Your task to perform on an android device: Add "usb-a to usb-b" to the cart on bestbuy.com, then select checkout. Image 0: 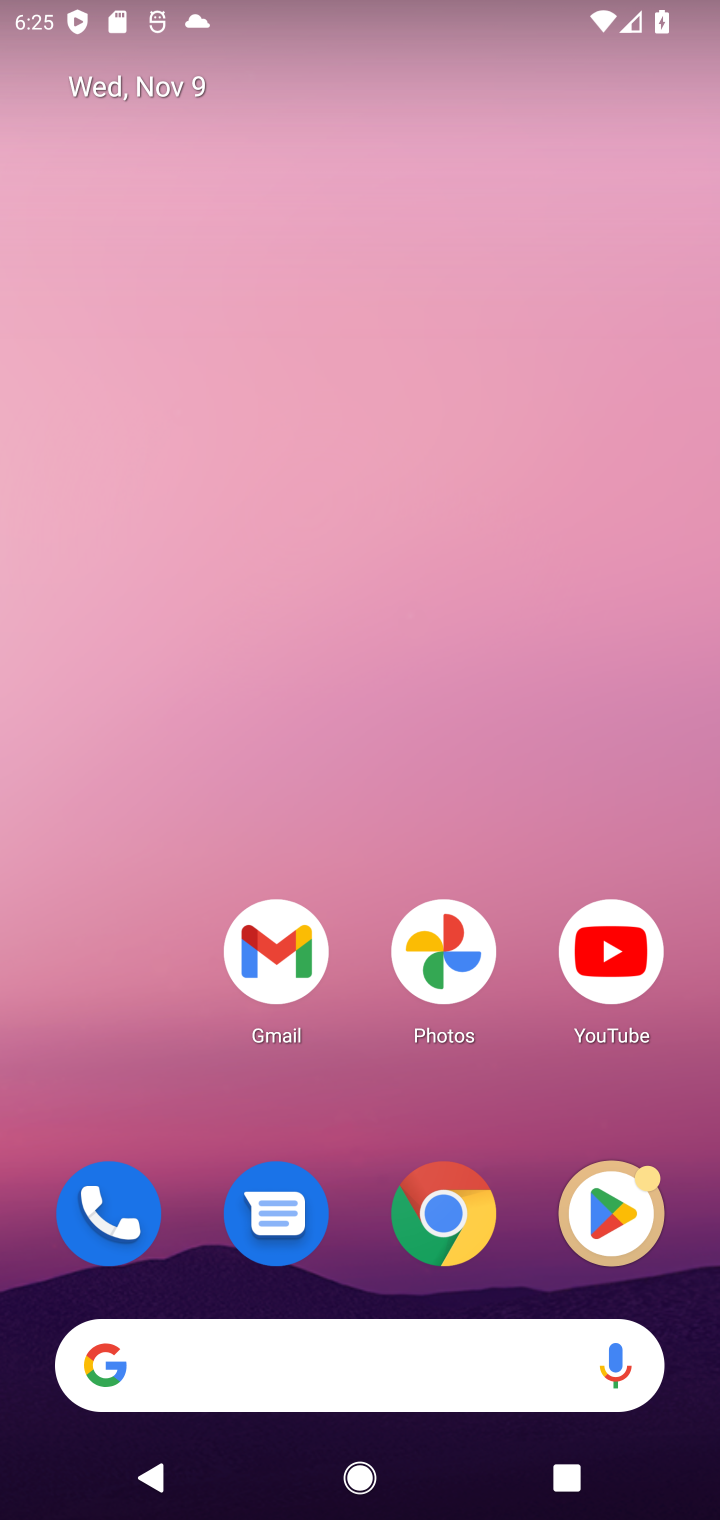
Step 0: click (429, 1202)
Your task to perform on an android device: Add "usb-a to usb-b" to the cart on bestbuy.com, then select checkout. Image 1: 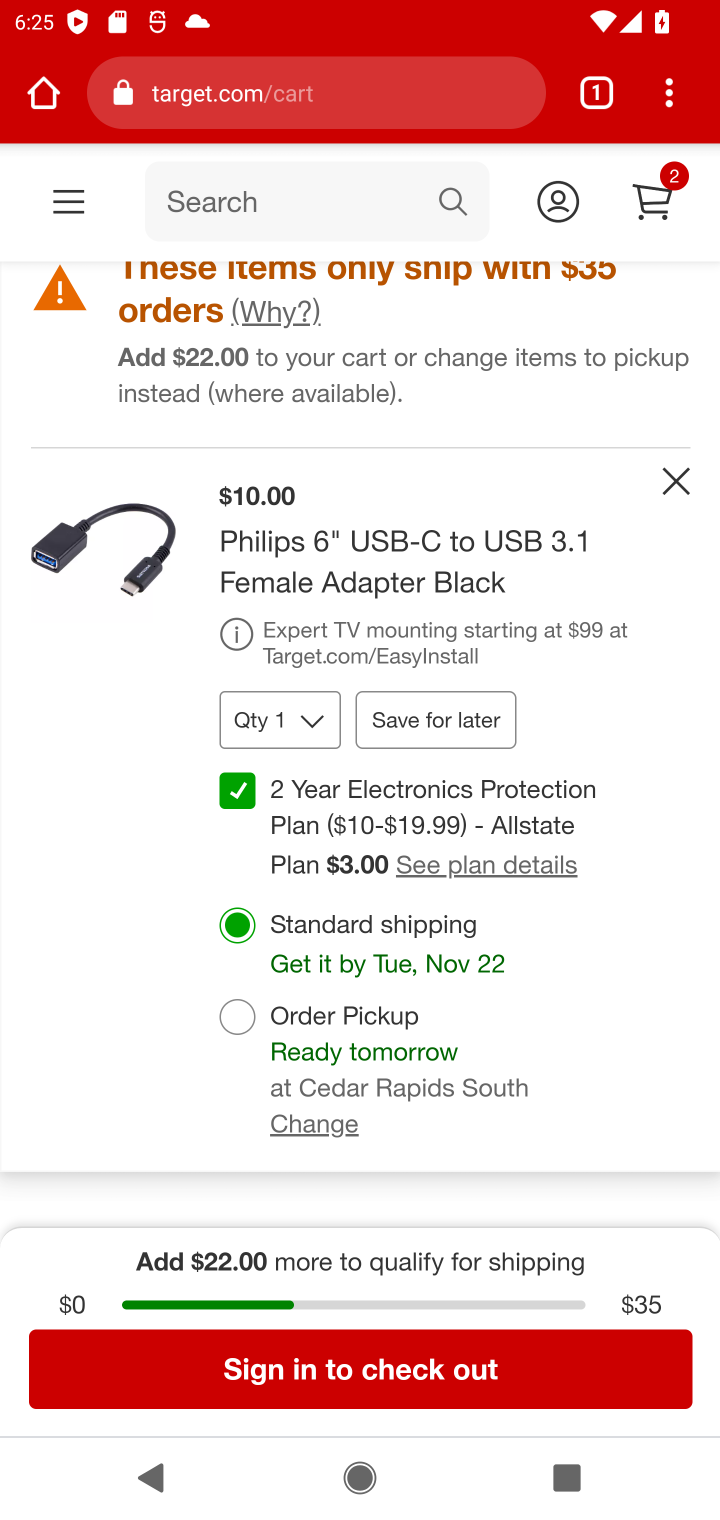
Step 1: click (207, 95)
Your task to perform on an android device: Add "usb-a to usb-b" to the cart on bestbuy.com, then select checkout. Image 2: 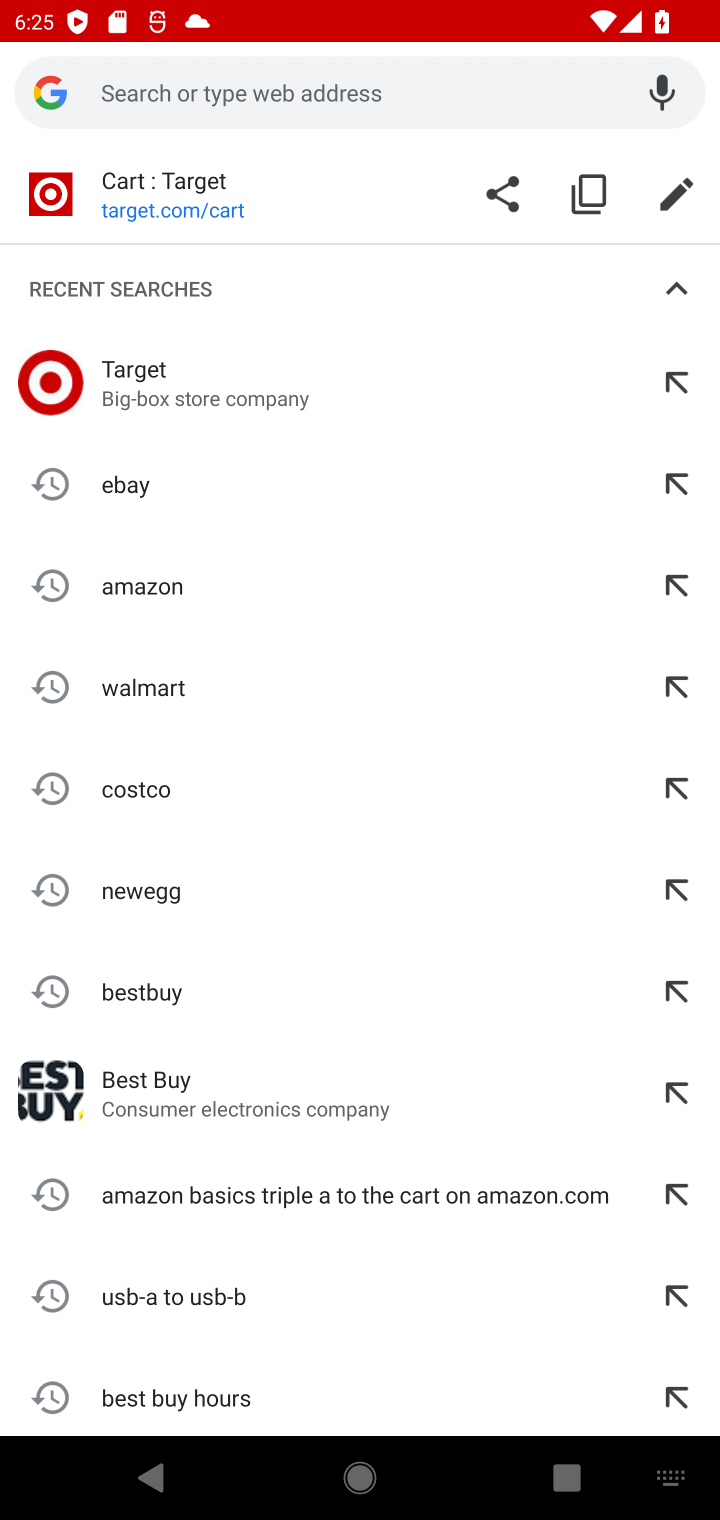
Step 2: click (175, 1107)
Your task to perform on an android device: Add "usb-a to usb-b" to the cart on bestbuy.com, then select checkout. Image 3: 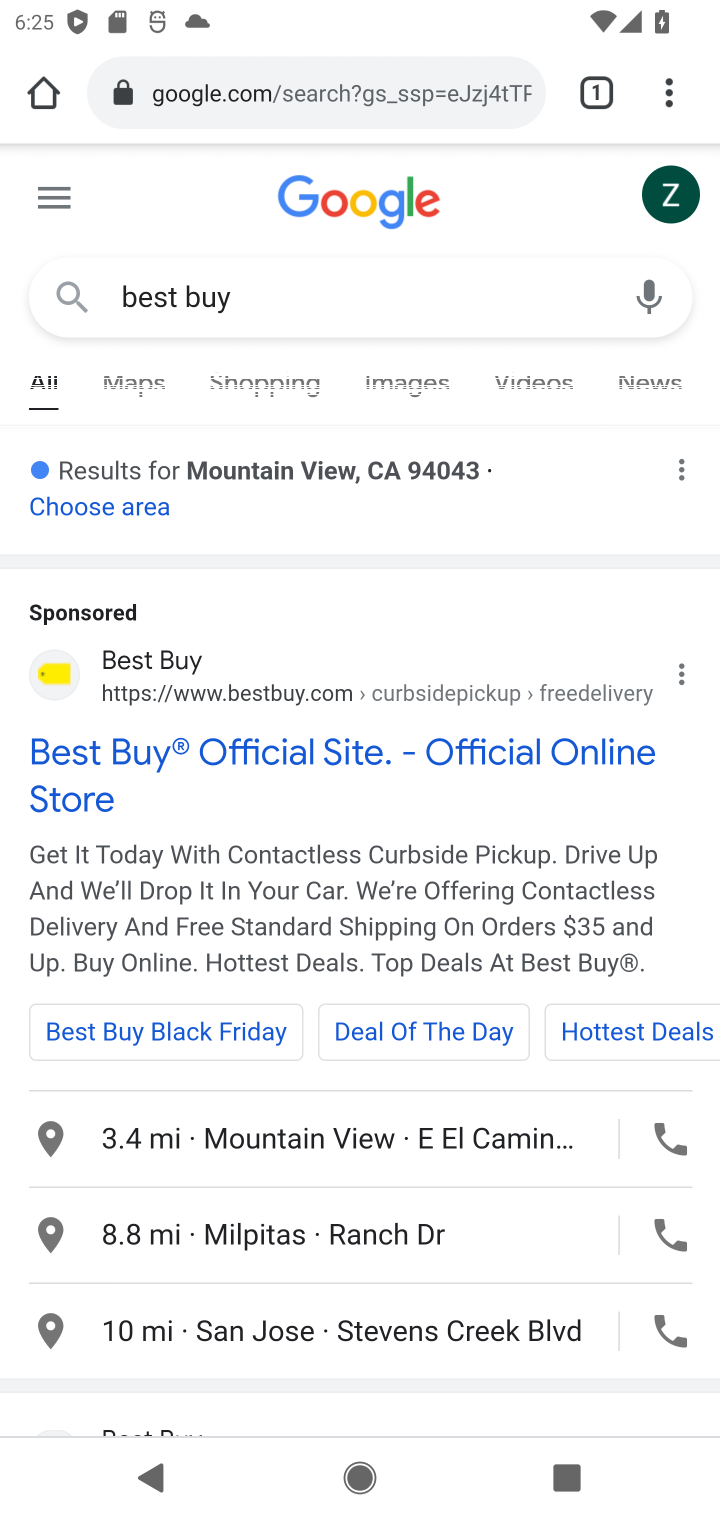
Step 3: drag from (185, 754) to (202, 371)
Your task to perform on an android device: Add "usb-a to usb-b" to the cart on bestbuy.com, then select checkout. Image 4: 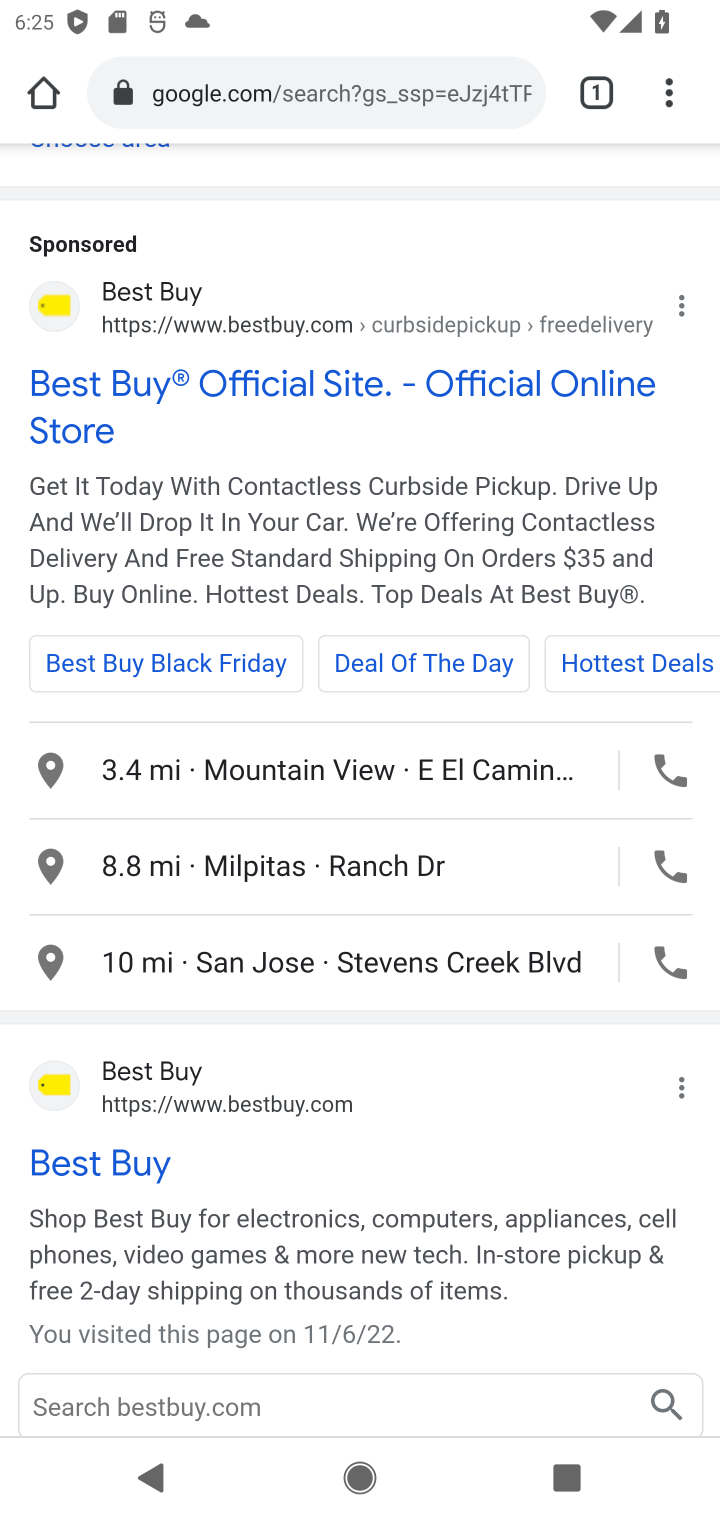
Step 4: click (81, 1159)
Your task to perform on an android device: Add "usb-a to usb-b" to the cart on bestbuy.com, then select checkout. Image 5: 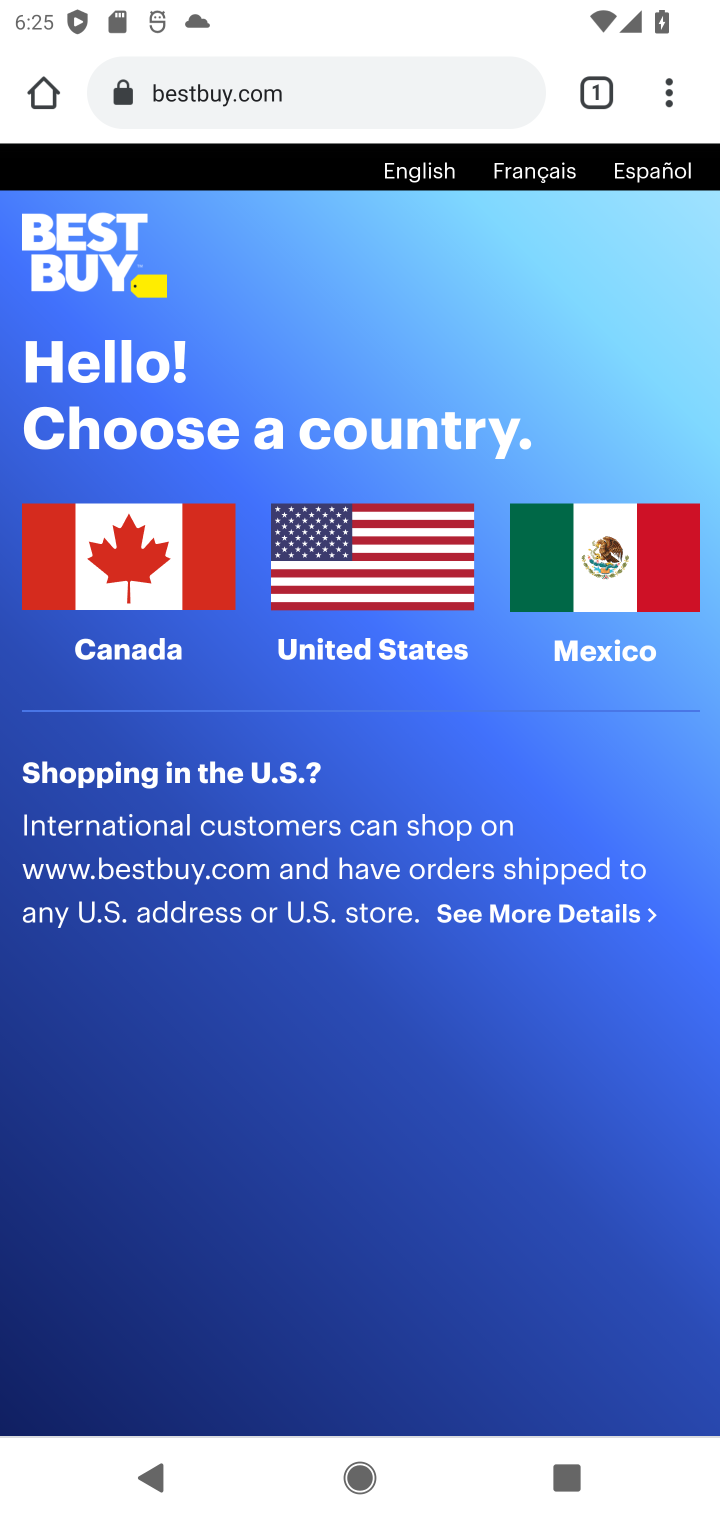
Step 5: click (90, 532)
Your task to perform on an android device: Add "usb-a to usb-b" to the cart on bestbuy.com, then select checkout. Image 6: 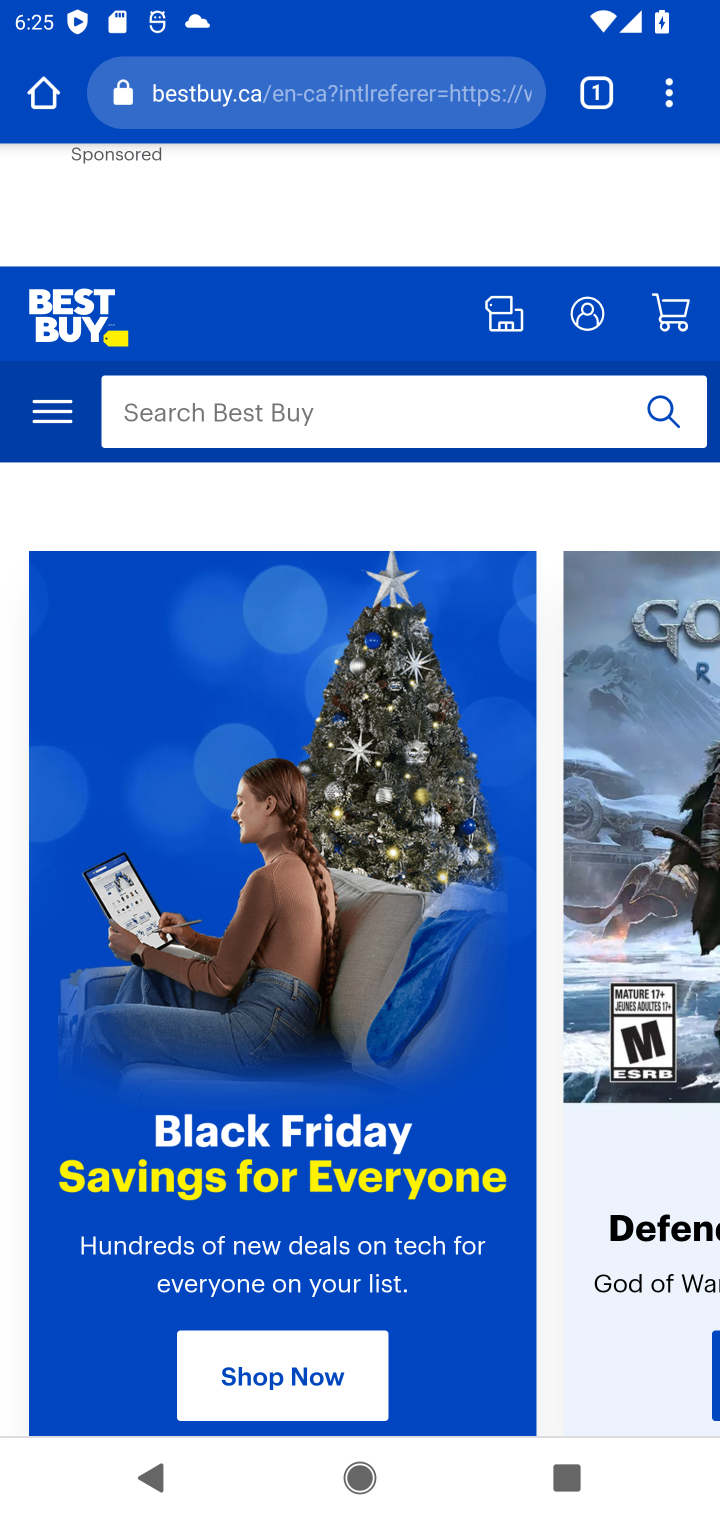
Step 6: click (169, 372)
Your task to perform on an android device: Add "usb-a to usb-b" to the cart on bestbuy.com, then select checkout. Image 7: 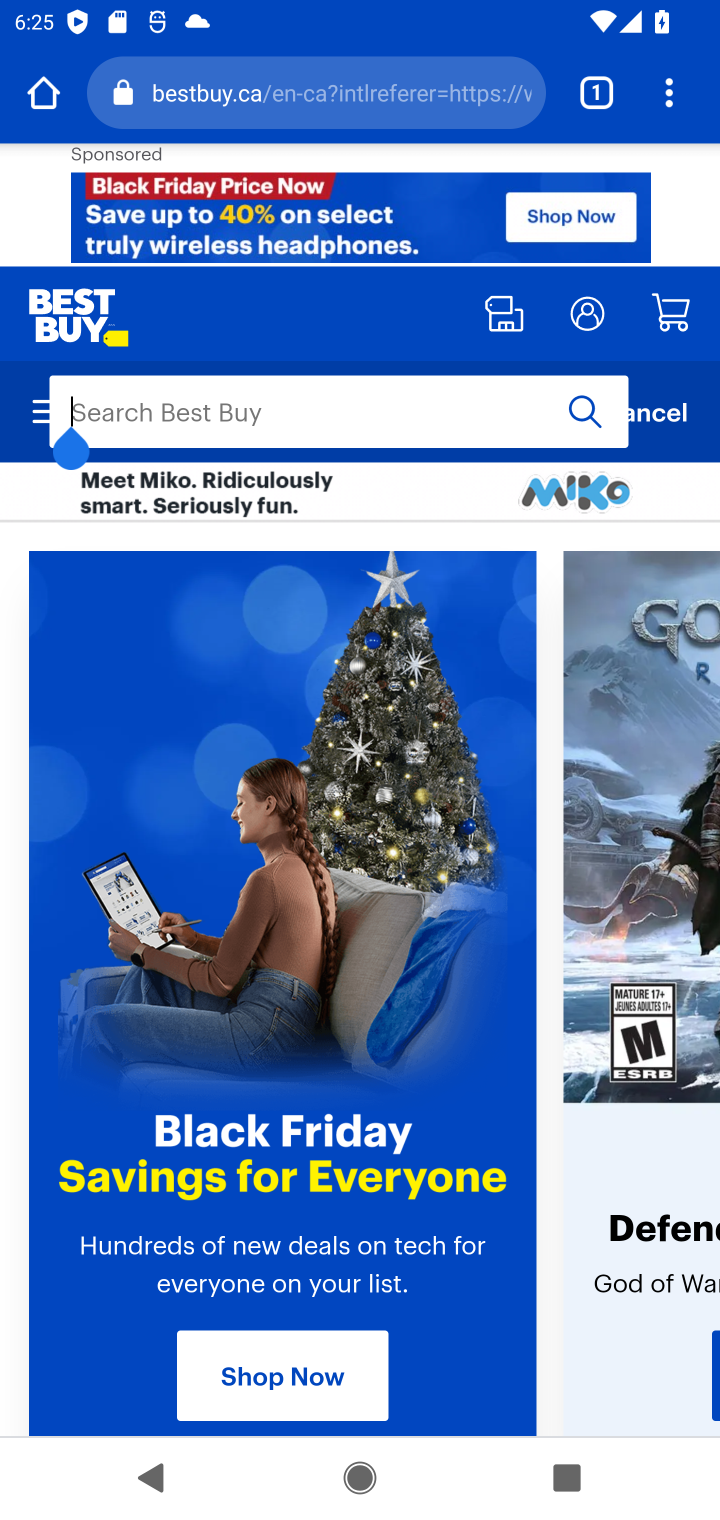
Step 7: click (151, 417)
Your task to perform on an android device: Add "usb-a to usb-b" to the cart on bestbuy.com, then select checkout. Image 8: 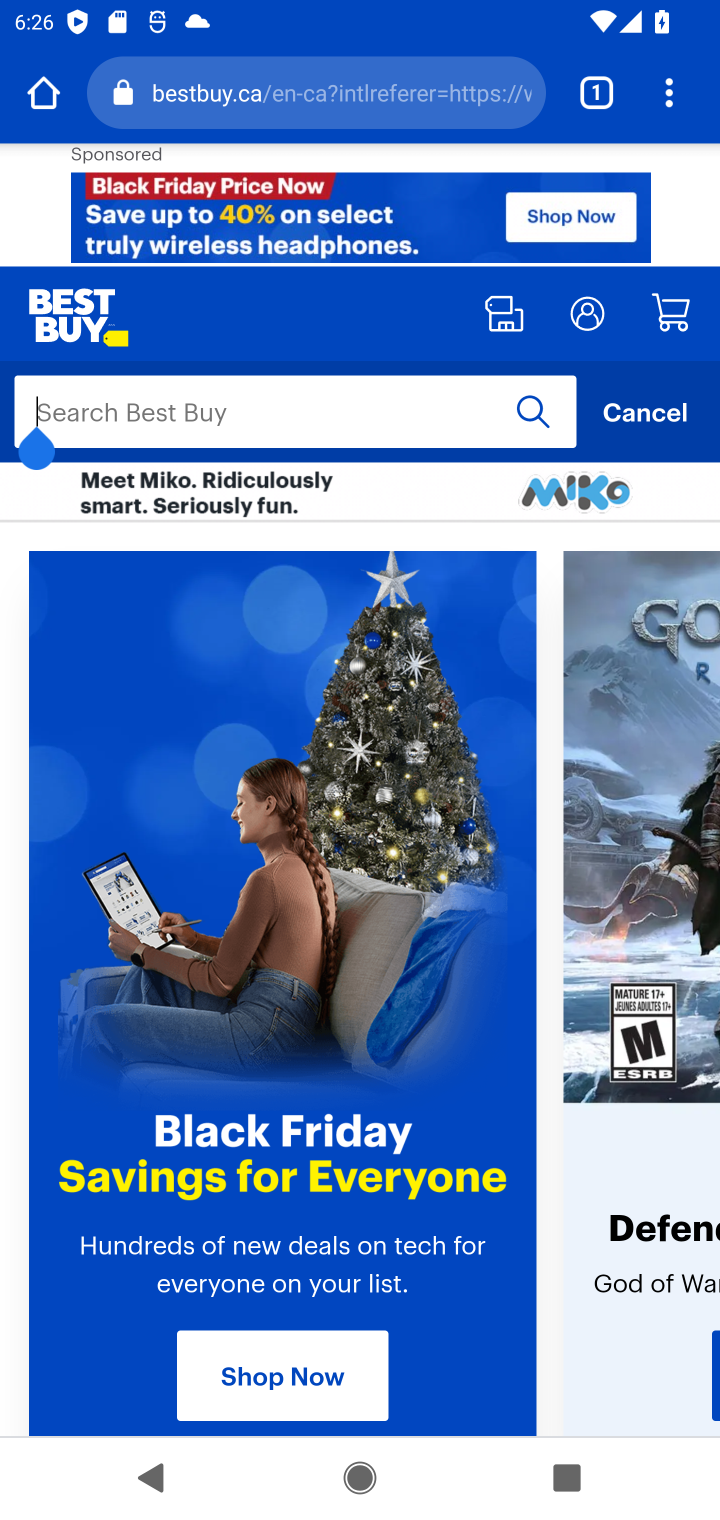
Step 8: type "usb a to usb b"
Your task to perform on an android device: Add "usb-a to usb-b" to the cart on bestbuy.com, then select checkout. Image 9: 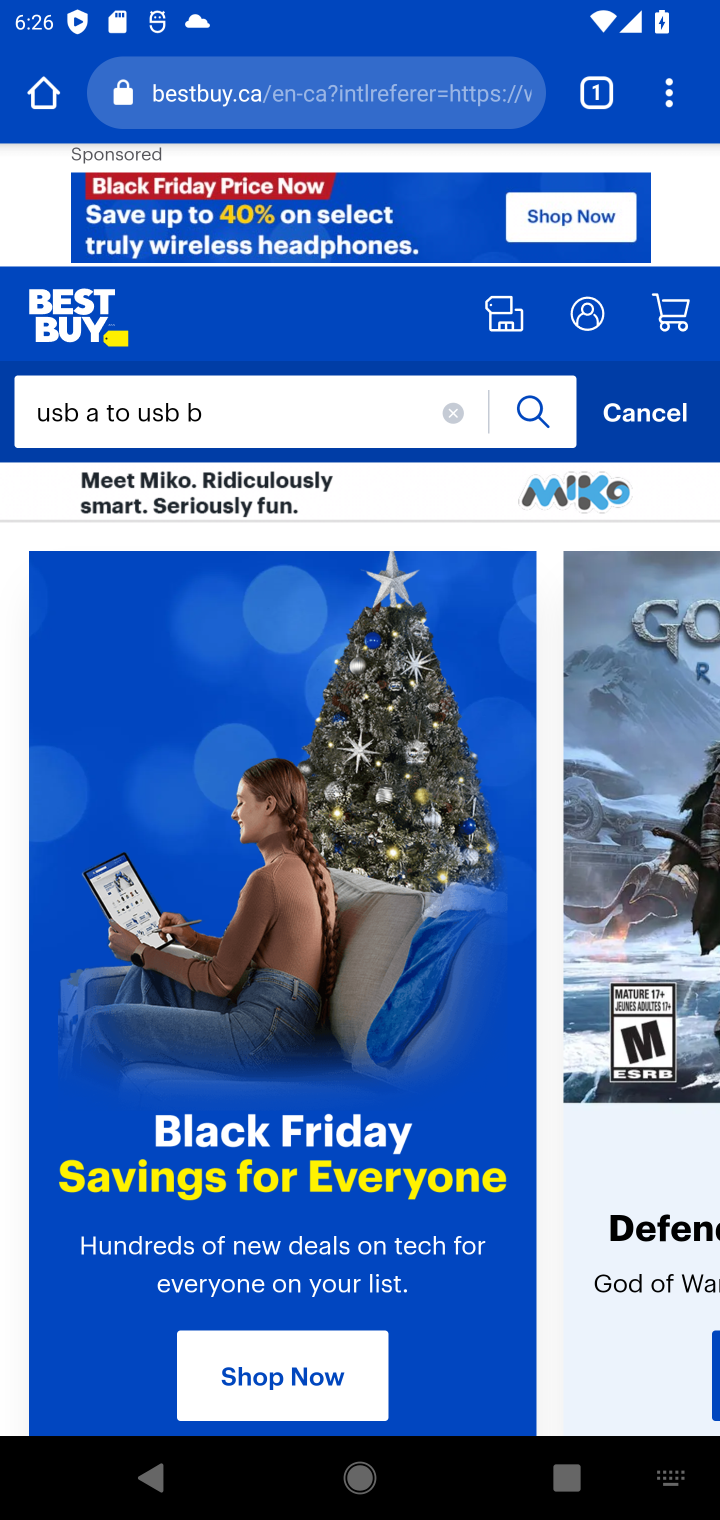
Step 9: click (520, 398)
Your task to perform on an android device: Add "usb-a to usb-b" to the cart on bestbuy.com, then select checkout. Image 10: 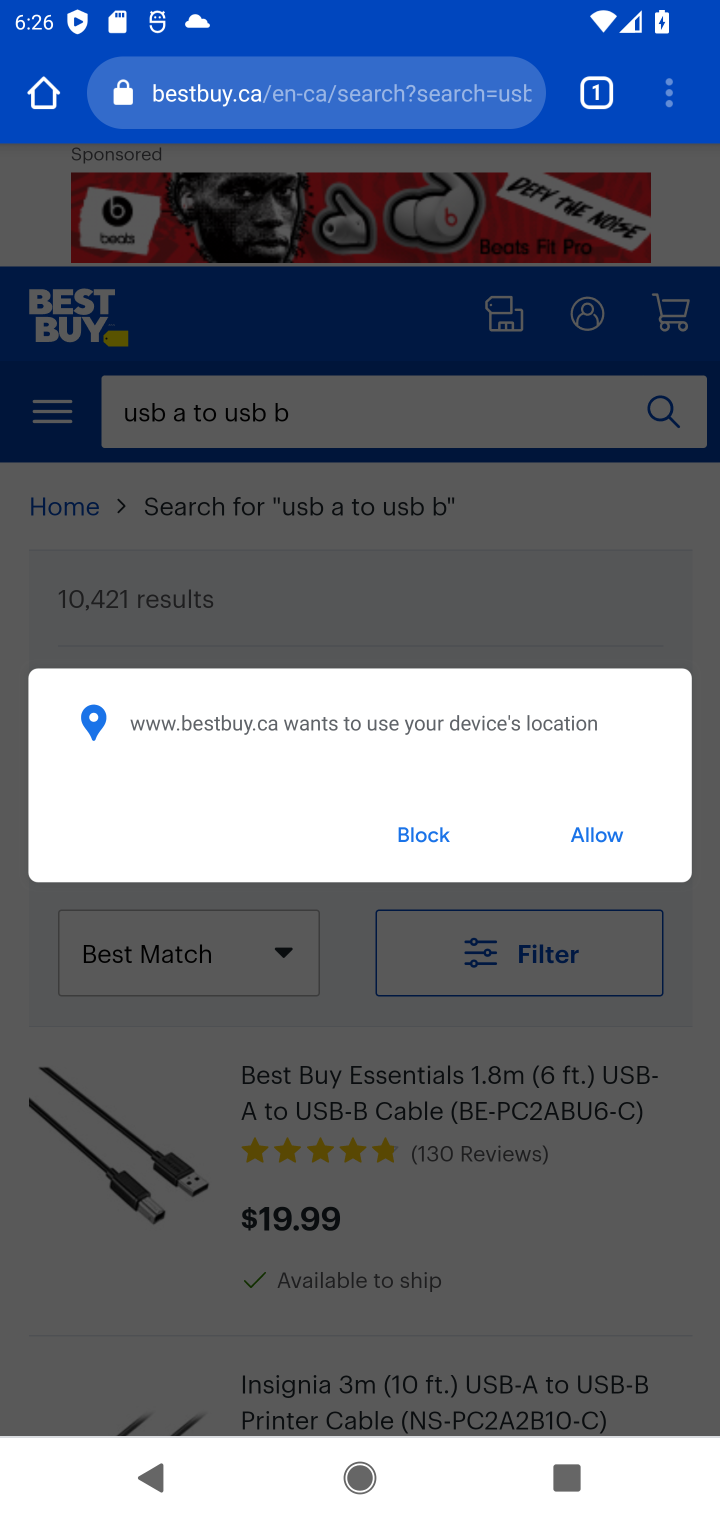
Step 10: click (584, 844)
Your task to perform on an android device: Add "usb-a to usb-b" to the cart on bestbuy.com, then select checkout. Image 11: 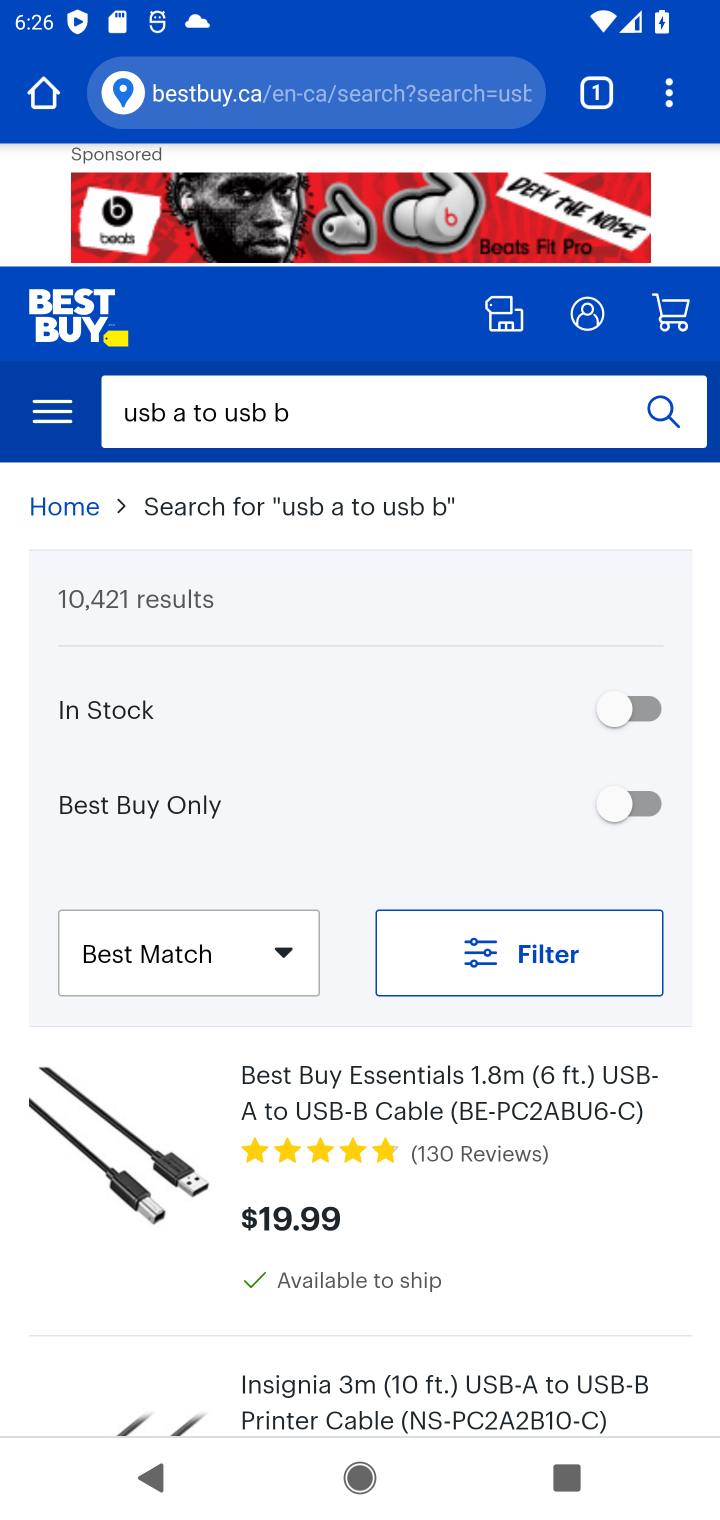
Step 11: click (451, 1092)
Your task to perform on an android device: Add "usb-a to usb-b" to the cart on bestbuy.com, then select checkout. Image 12: 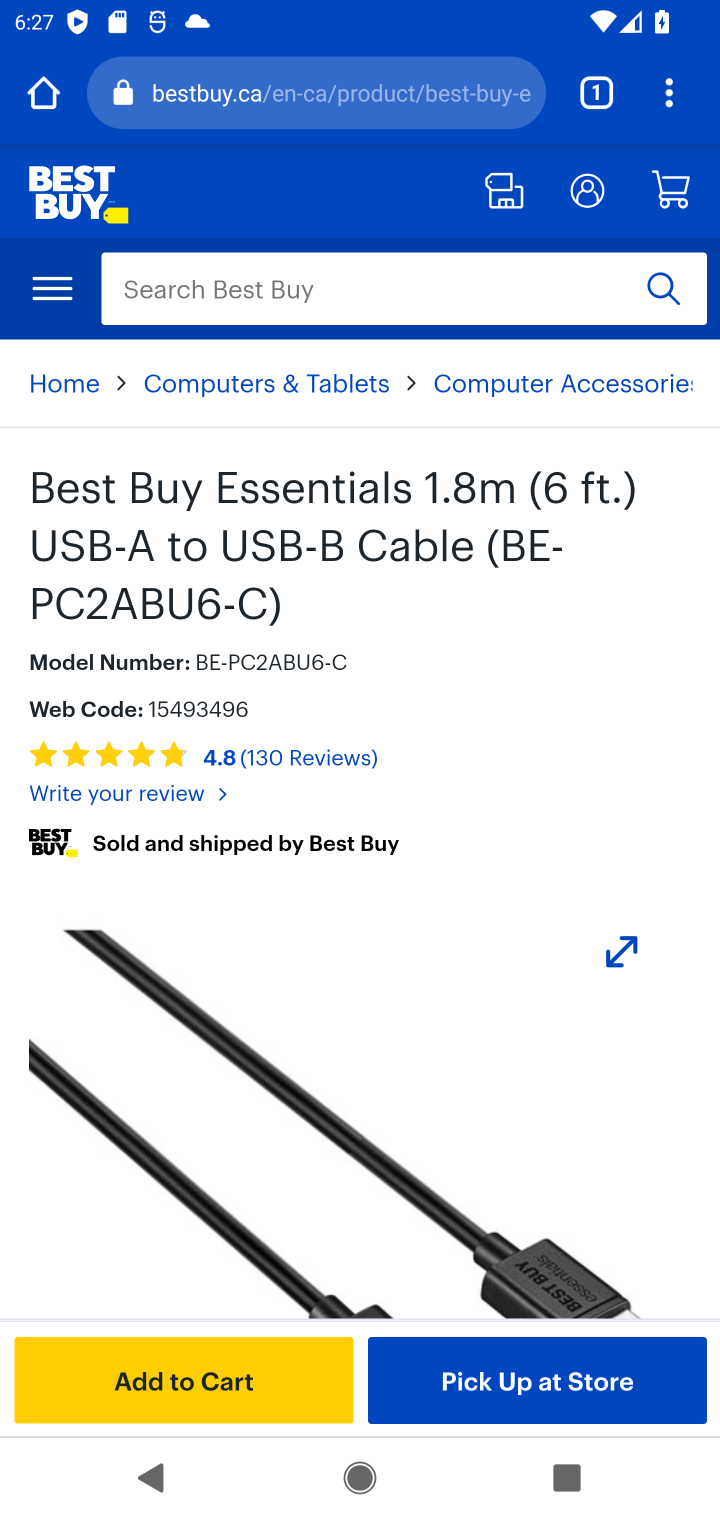
Step 12: drag from (324, 987) to (383, 734)
Your task to perform on an android device: Add "usb-a to usb-b" to the cart on bestbuy.com, then select checkout. Image 13: 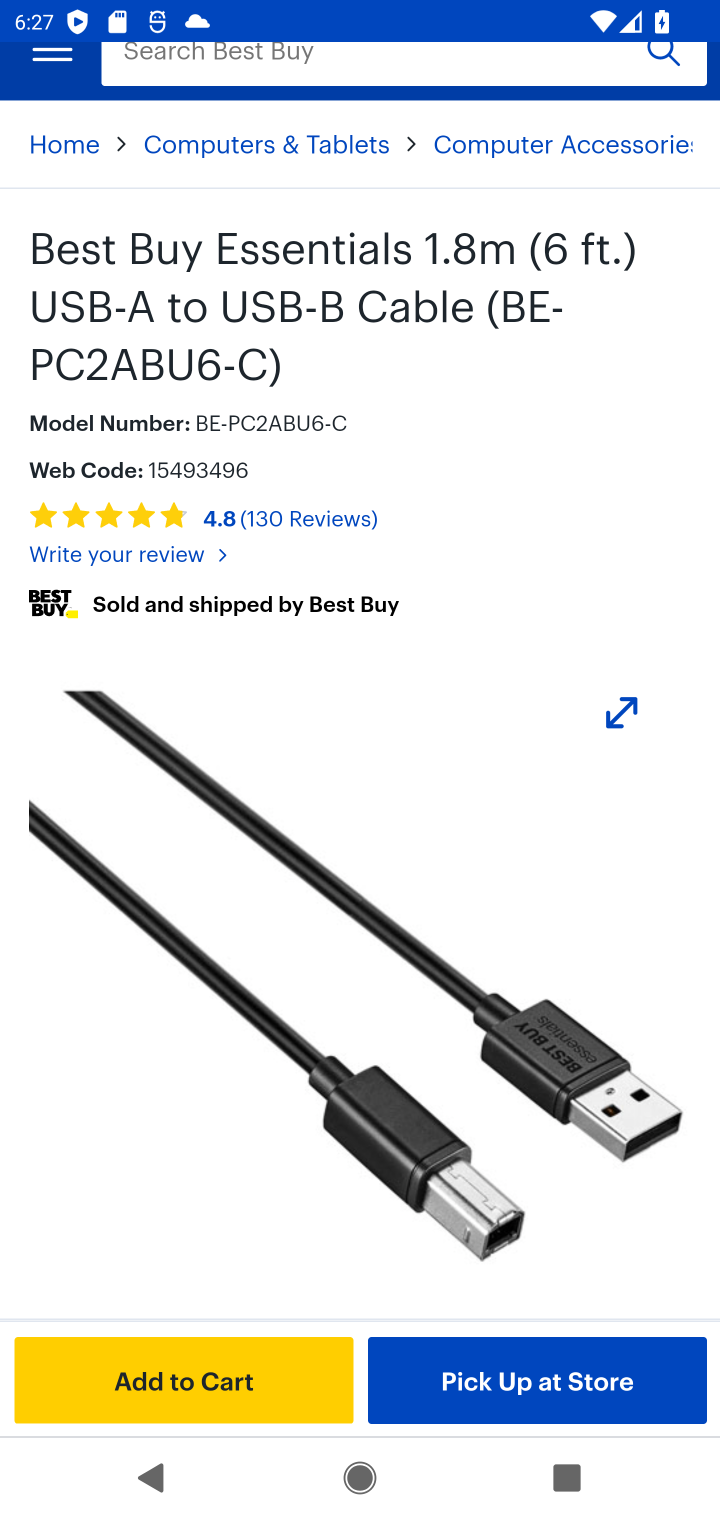
Step 13: click (132, 1375)
Your task to perform on an android device: Add "usb-a to usb-b" to the cart on bestbuy.com, then select checkout. Image 14: 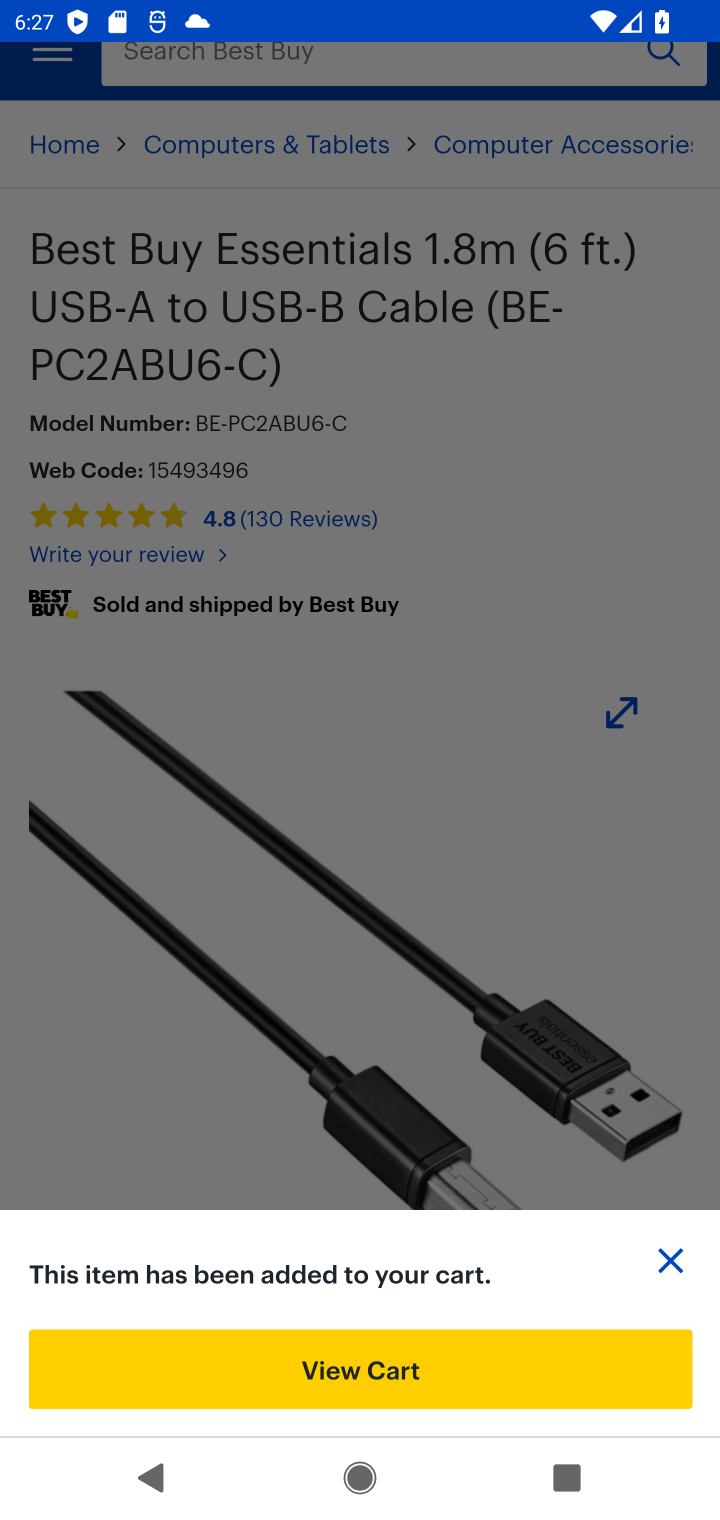
Step 14: click (128, 1391)
Your task to perform on an android device: Add "usb-a to usb-b" to the cart on bestbuy.com, then select checkout. Image 15: 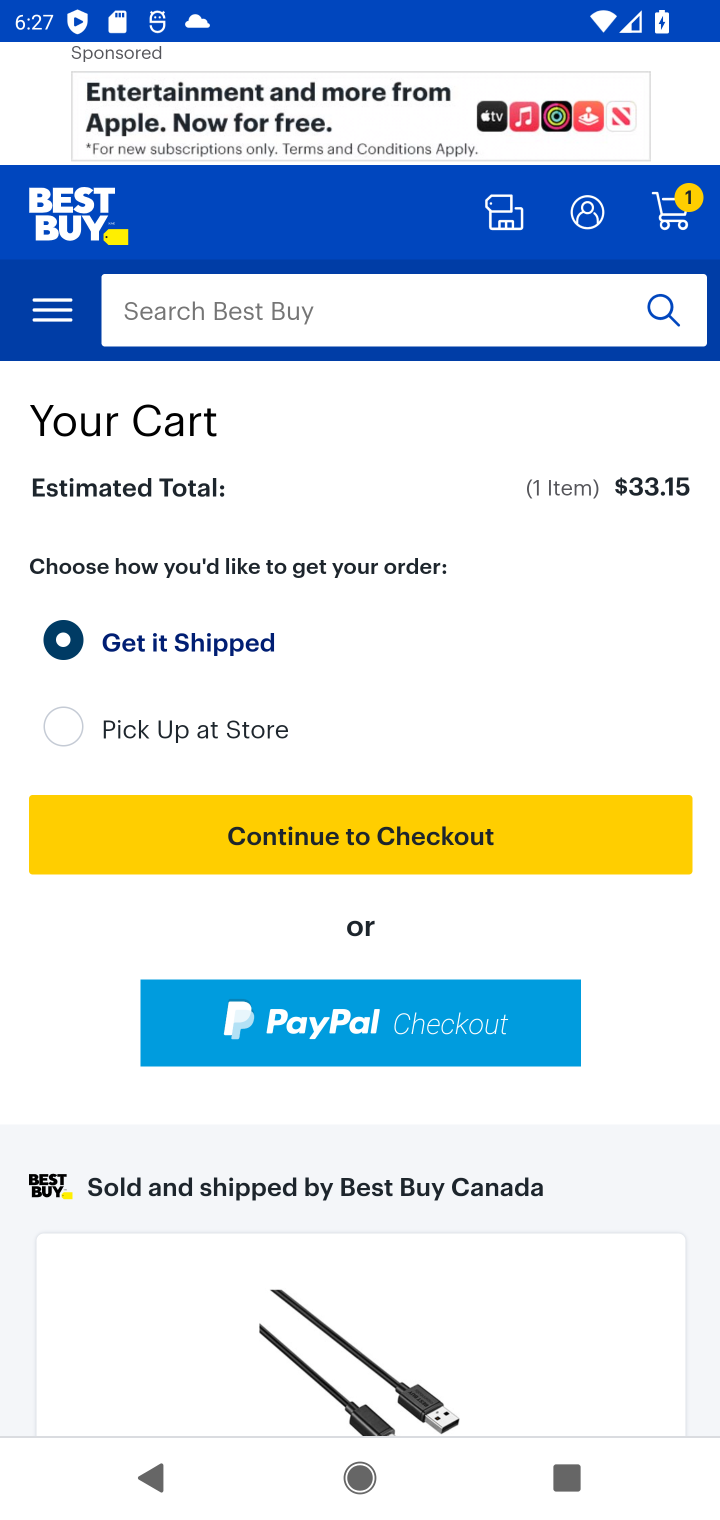
Step 15: click (387, 832)
Your task to perform on an android device: Add "usb-a to usb-b" to the cart on bestbuy.com, then select checkout. Image 16: 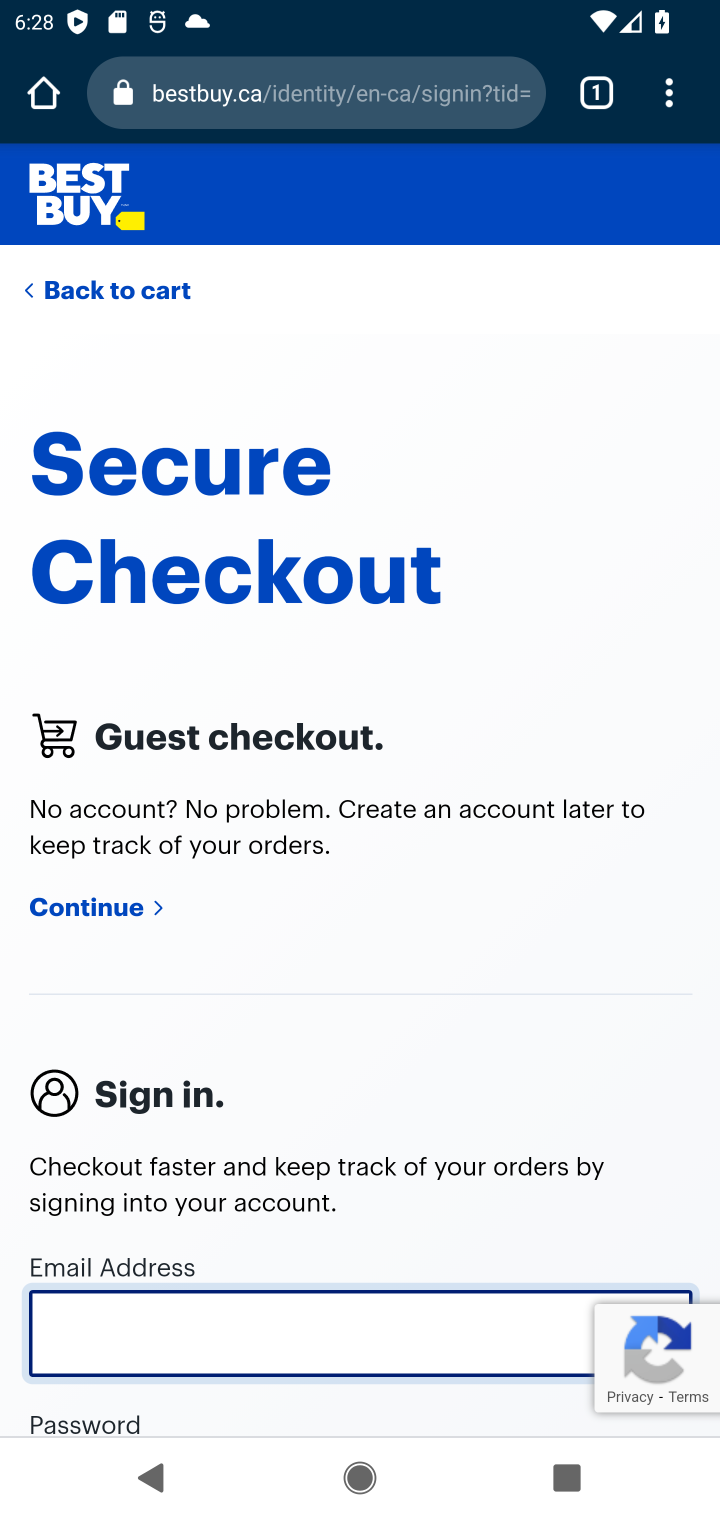
Step 16: task complete